Your task to perform on an android device: turn on airplane mode Image 0: 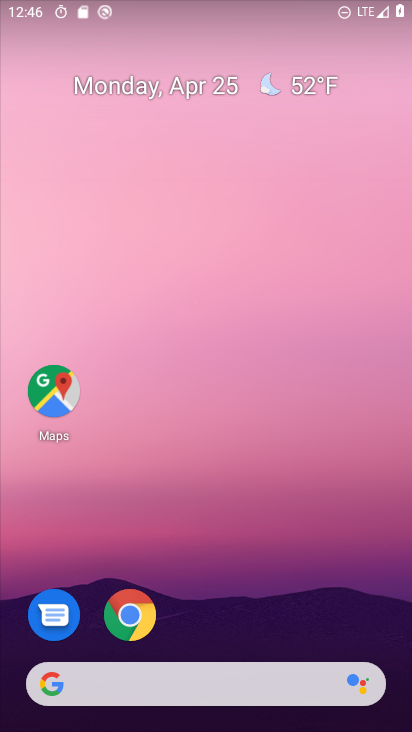
Step 0: drag from (202, 651) to (185, 2)
Your task to perform on an android device: turn on airplane mode Image 1: 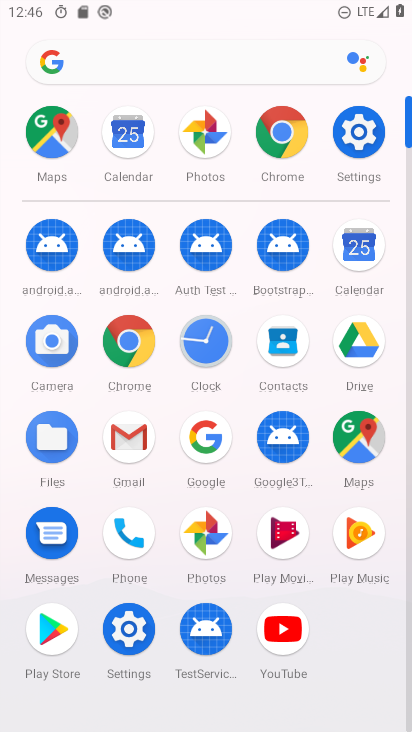
Step 1: click (356, 140)
Your task to perform on an android device: turn on airplane mode Image 2: 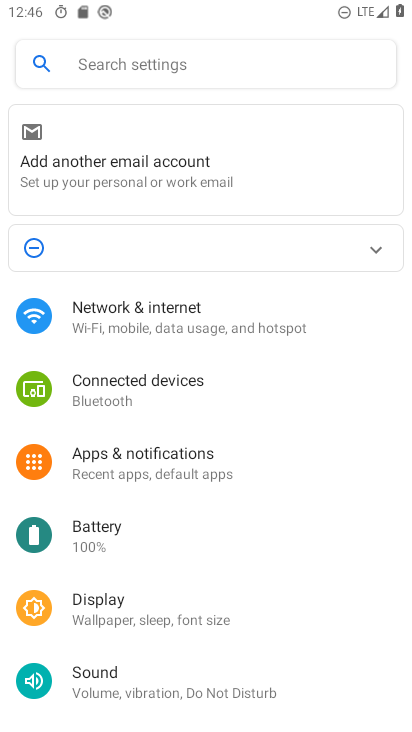
Step 2: click (139, 318)
Your task to perform on an android device: turn on airplane mode Image 3: 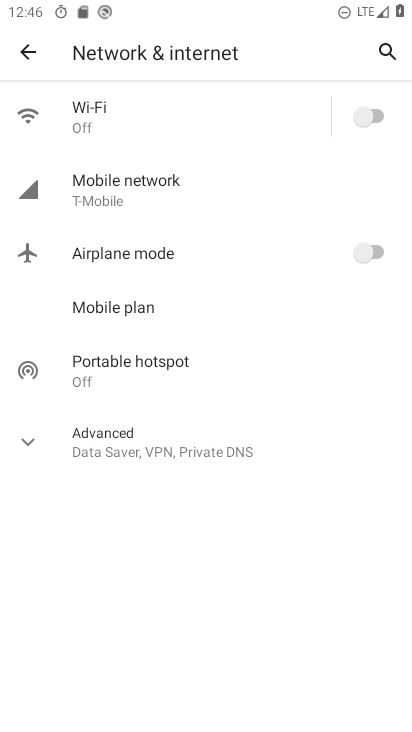
Step 3: click (370, 249)
Your task to perform on an android device: turn on airplane mode Image 4: 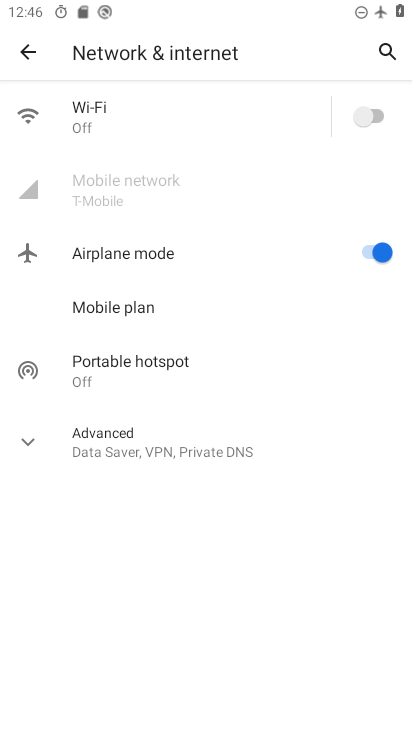
Step 4: task complete